Your task to perform on an android device: open a bookmark in the chrome app Image 0: 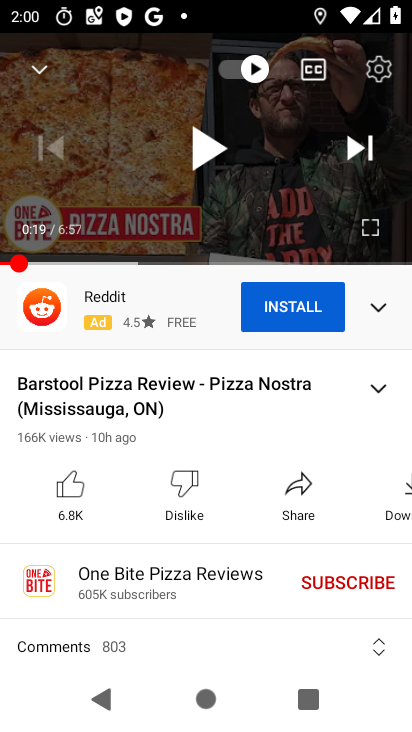
Step 0: press home button
Your task to perform on an android device: open a bookmark in the chrome app Image 1: 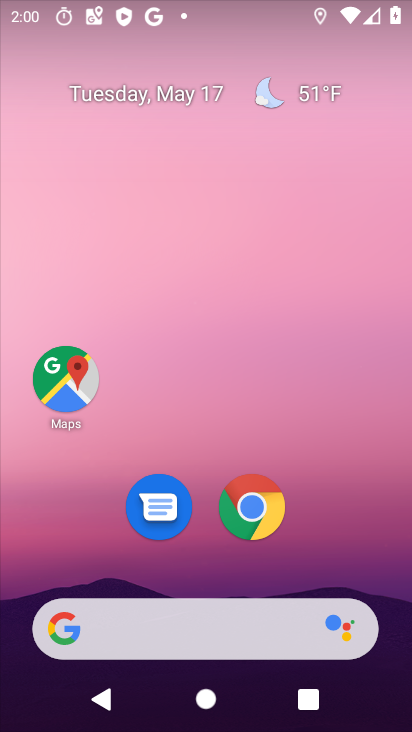
Step 1: click (252, 507)
Your task to perform on an android device: open a bookmark in the chrome app Image 2: 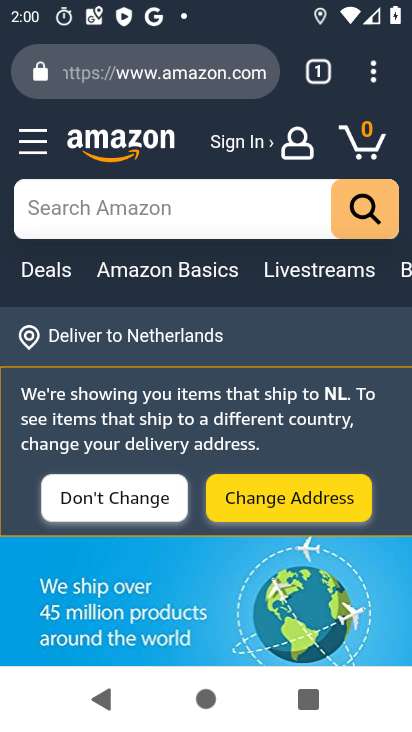
Step 2: click (370, 82)
Your task to perform on an android device: open a bookmark in the chrome app Image 3: 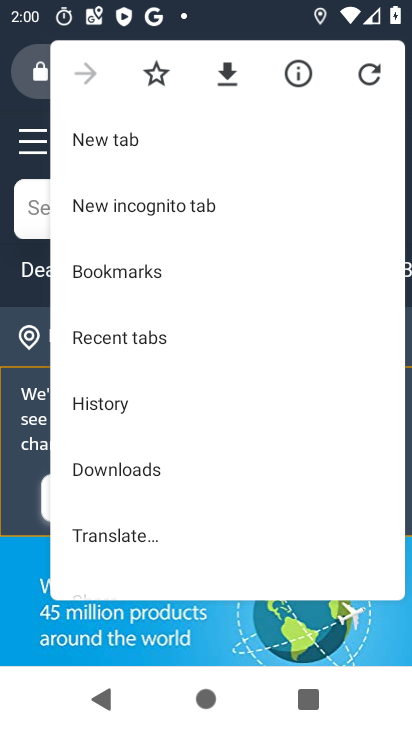
Step 3: click (183, 267)
Your task to perform on an android device: open a bookmark in the chrome app Image 4: 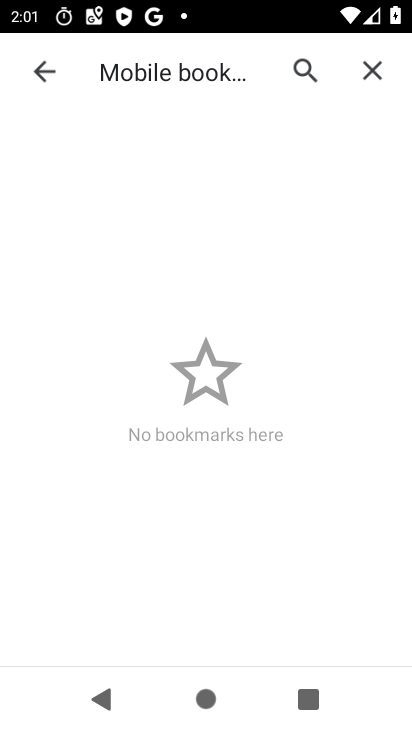
Step 4: task complete